Your task to perform on an android device: add a contact in the contacts app Image 0: 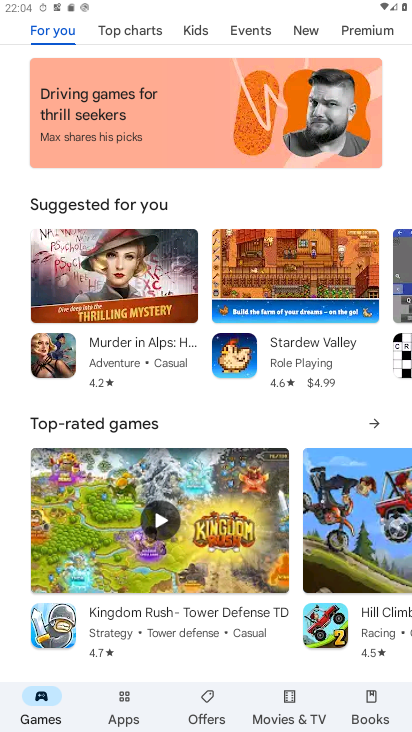
Step 0: press home button
Your task to perform on an android device: add a contact in the contacts app Image 1: 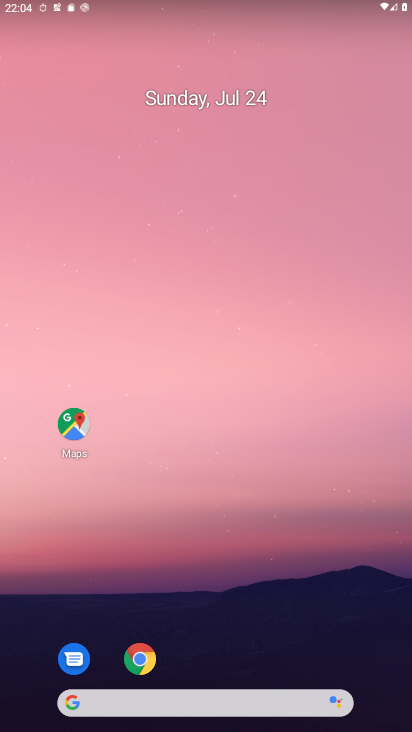
Step 1: drag from (232, 718) to (267, 159)
Your task to perform on an android device: add a contact in the contacts app Image 2: 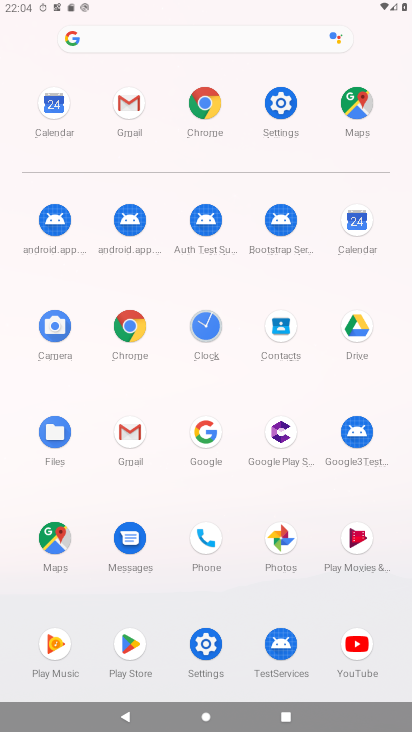
Step 2: click (284, 329)
Your task to perform on an android device: add a contact in the contacts app Image 3: 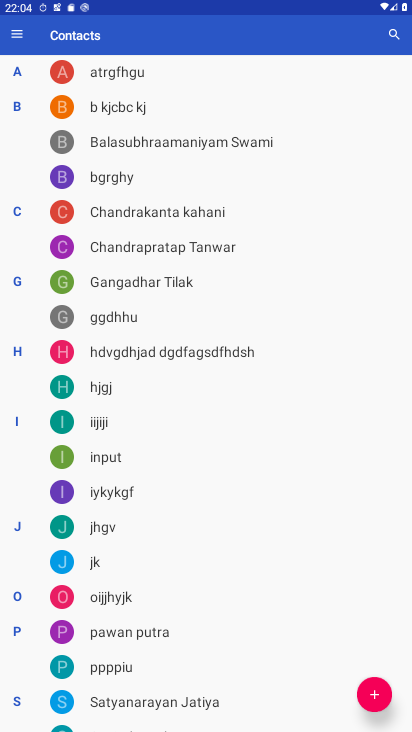
Step 3: click (377, 696)
Your task to perform on an android device: add a contact in the contacts app Image 4: 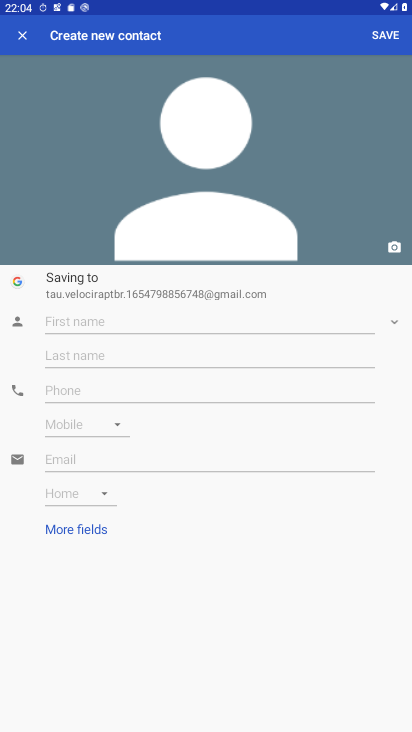
Step 4: click (182, 320)
Your task to perform on an android device: add a contact in the contacts app Image 5: 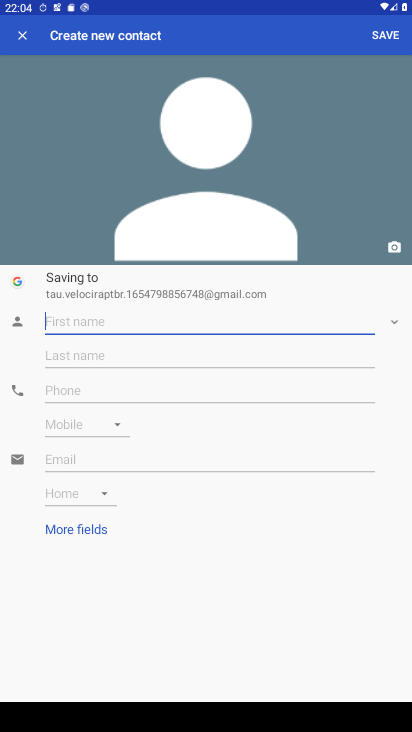
Step 5: type "swami vivekanand"
Your task to perform on an android device: add a contact in the contacts app Image 6: 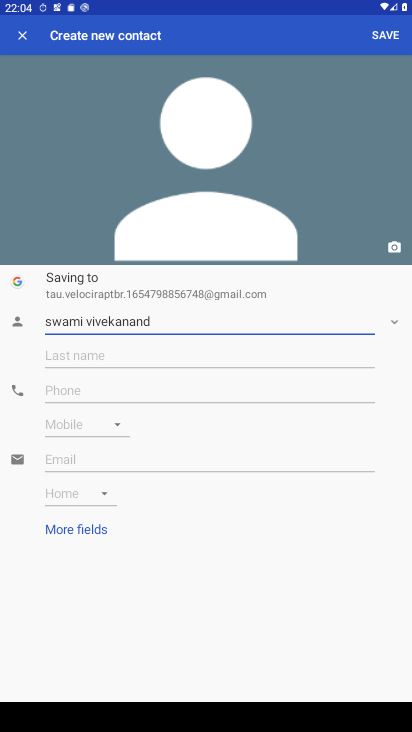
Step 6: click (393, 34)
Your task to perform on an android device: add a contact in the contacts app Image 7: 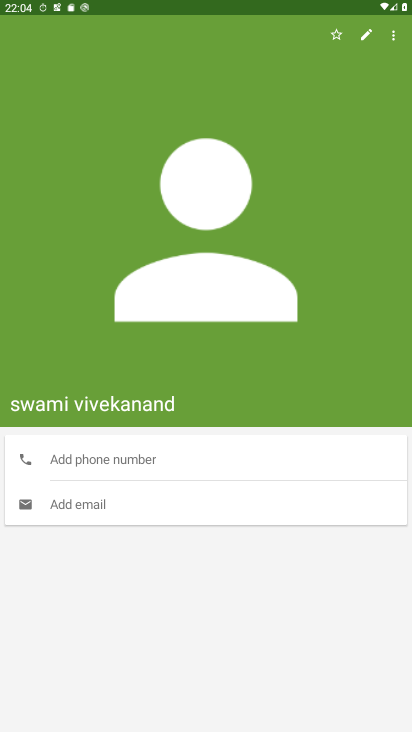
Step 7: task complete